Your task to perform on an android device: Open Wikipedia Image 0: 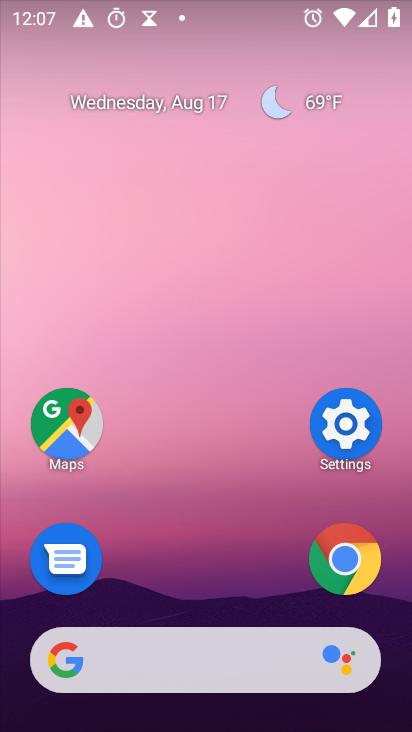
Step 0: click (340, 565)
Your task to perform on an android device: Open Wikipedia Image 1: 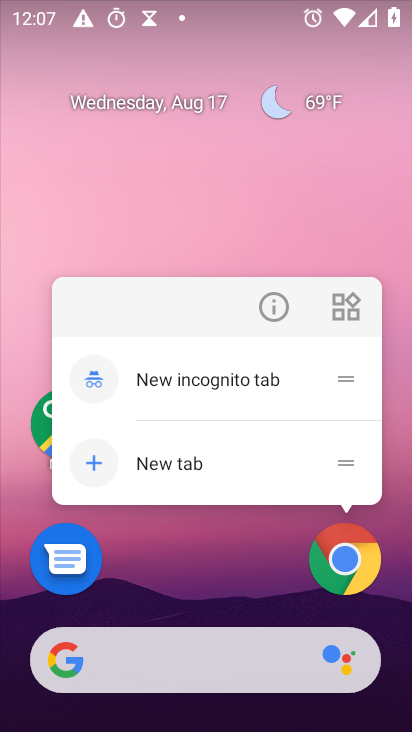
Step 1: click (343, 559)
Your task to perform on an android device: Open Wikipedia Image 2: 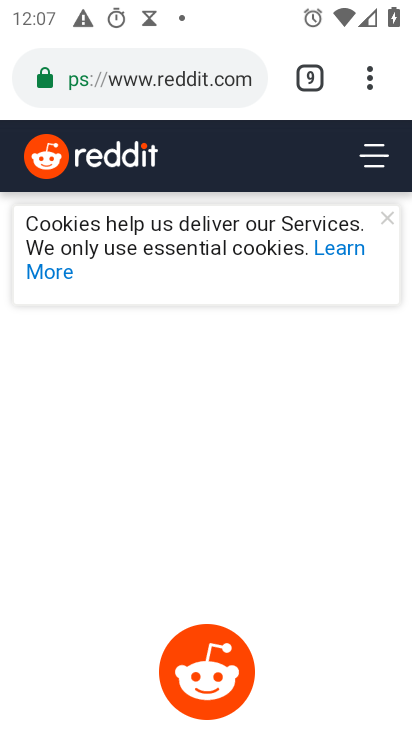
Step 2: drag from (371, 73) to (92, 150)
Your task to perform on an android device: Open Wikipedia Image 3: 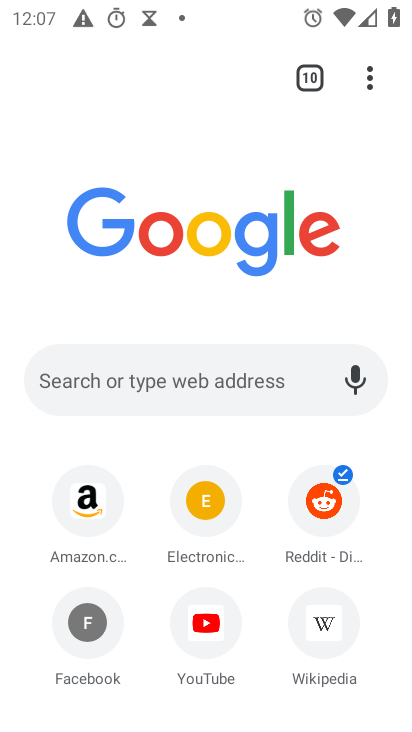
Step 3: click (328, 620)
Your task to perform on an android device: Open Wikipedia Image 4: 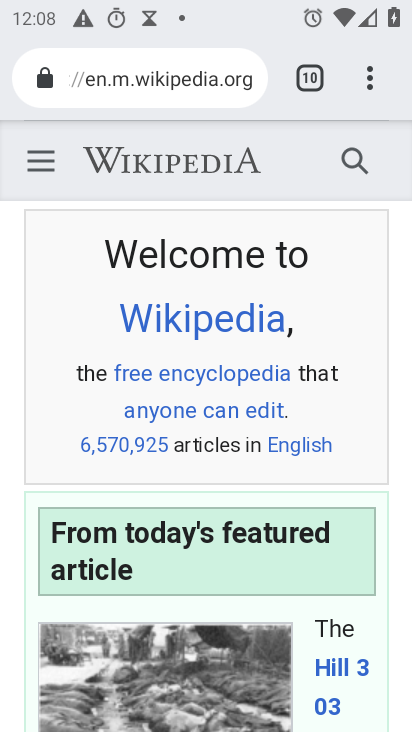
Step 4: task complete